Your task to perform on an android device: Open maps Image 0: 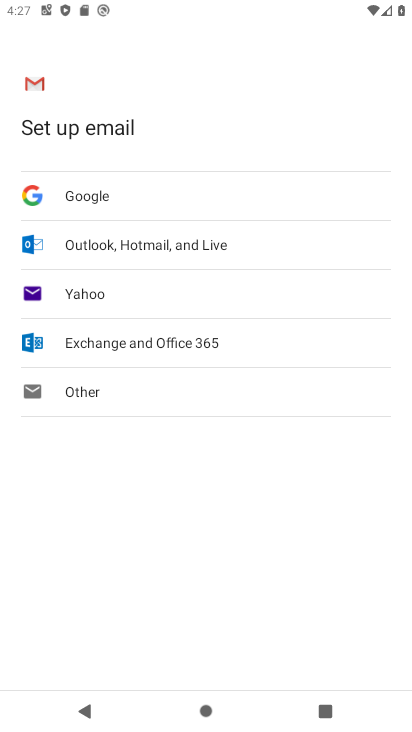
Step 0: press home button
Your task to perform on an android device: Open maps Image 1: 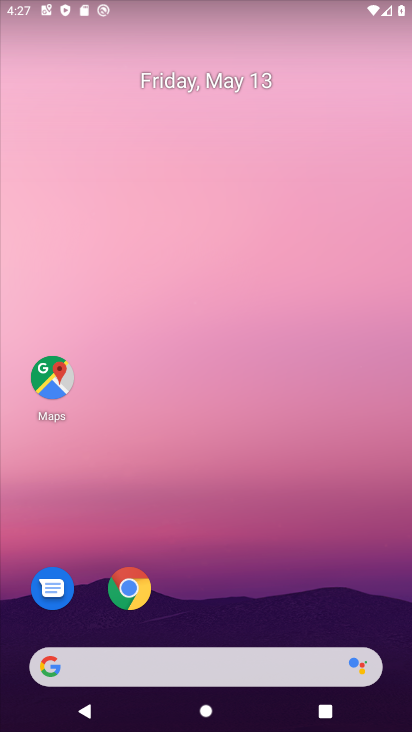
Step 1: click (37, 381)
Your task to perform on an android device: Open maps Image 2: 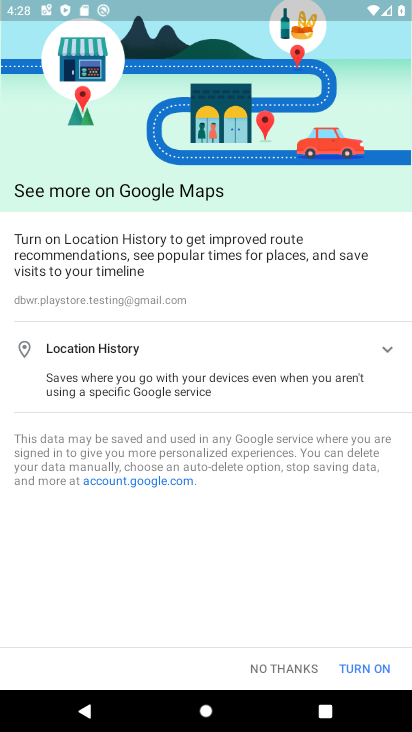
Step 2: click (357, 665)
Your task to perform on an android device: Open maps Image 3: 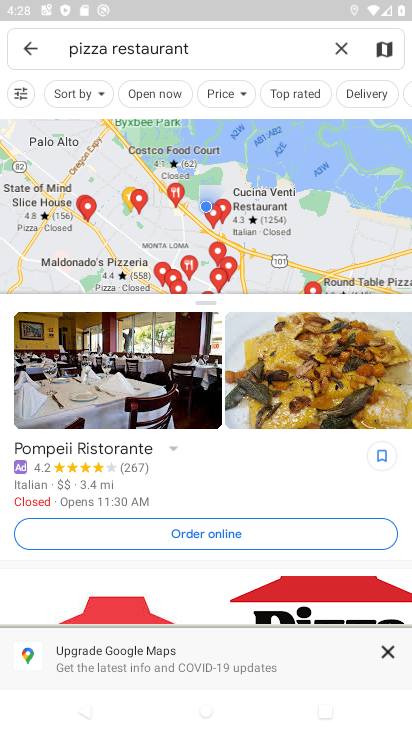
Step 3: task complete